Your task to perform on an android device: Show me the alarms in the clock app Image 0: 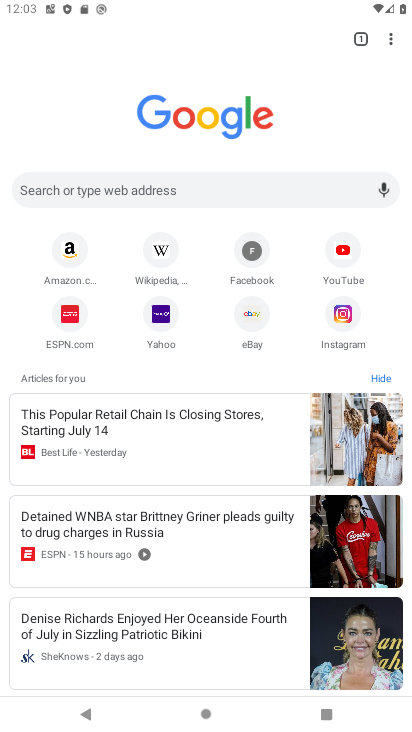
Step 0: press home button
Your task to perform on an android device: Show me the alarms in the clock app Image 1: 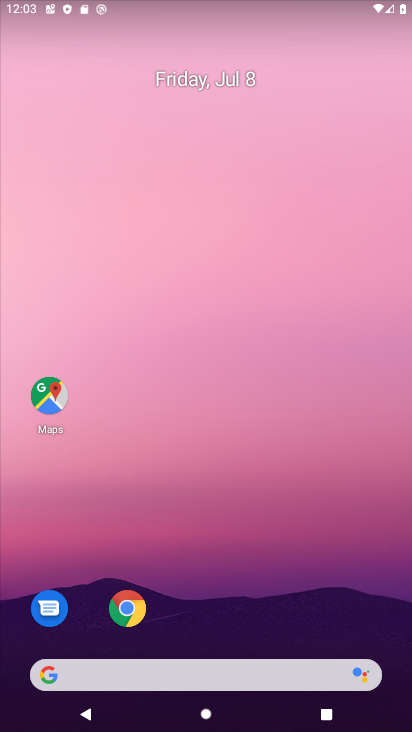
Step 1: drag from (269, 579) to (289, 72)
Your task to perform on an android device: Show me the alarms in the clock app Image 2: 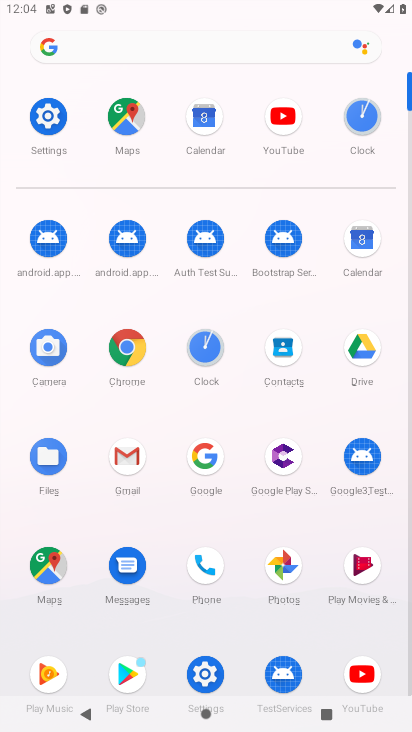
Step 2: click (344, 137)
Your task to perform on an android device: Show me the alarms in the clock app Image 3: 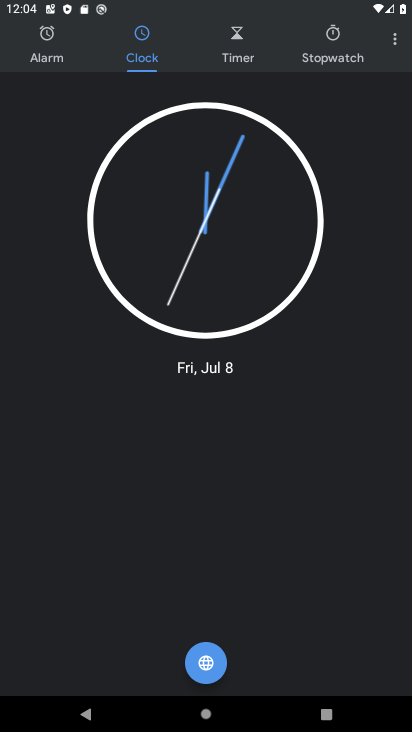
Step 3: click (44, 58)
Your task to perform on an android device: Show me the alarms in the clock app Image 4: 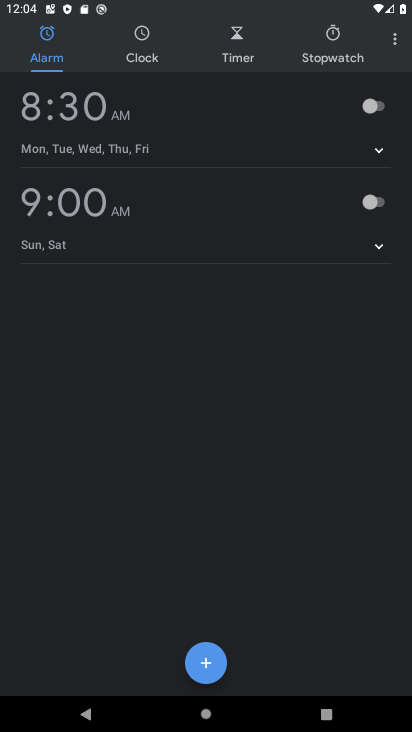
Step 4: task complete